Your task to perform on an android device: When is my next appointment? Image 0: 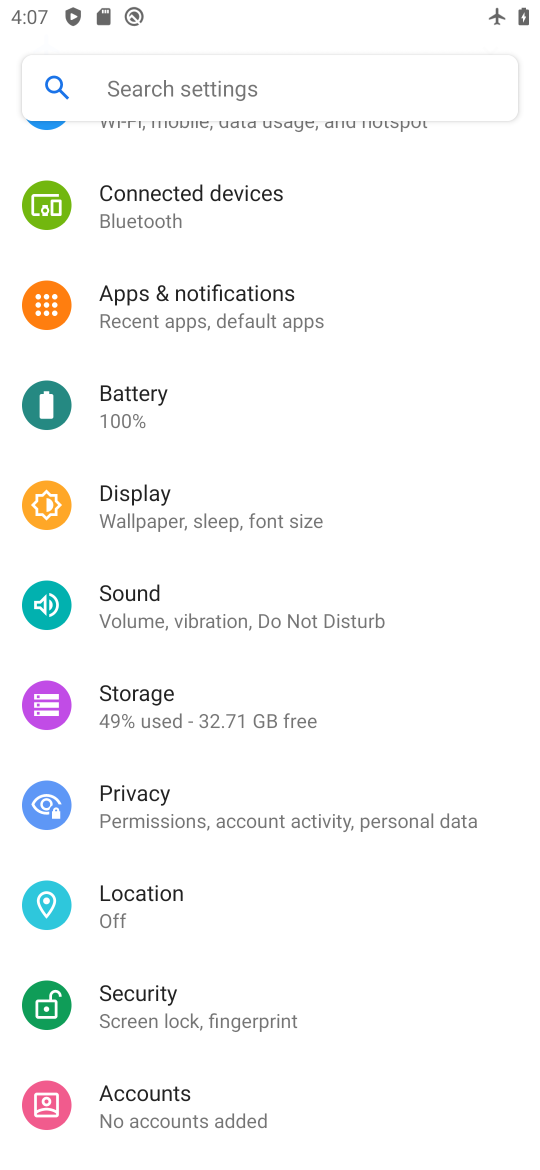
Step 0: drag from (425, 1022) to (344, 674)
Your task to perform on an android device: When is my next appointment? Image 1: 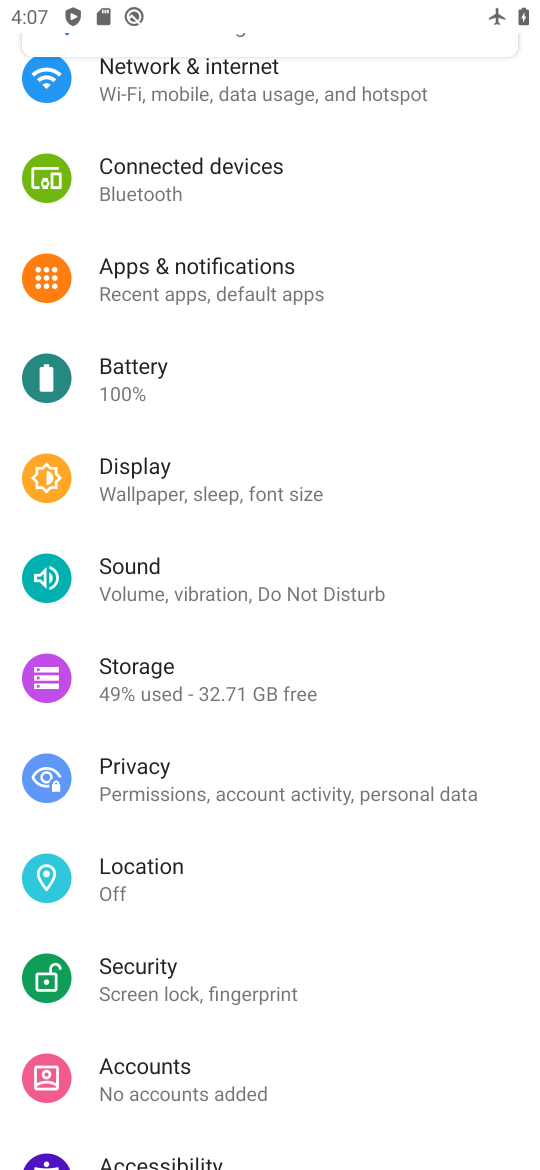
Step 1: press home button
Your task to perform on an android device: When is my next appointment? Image 2: 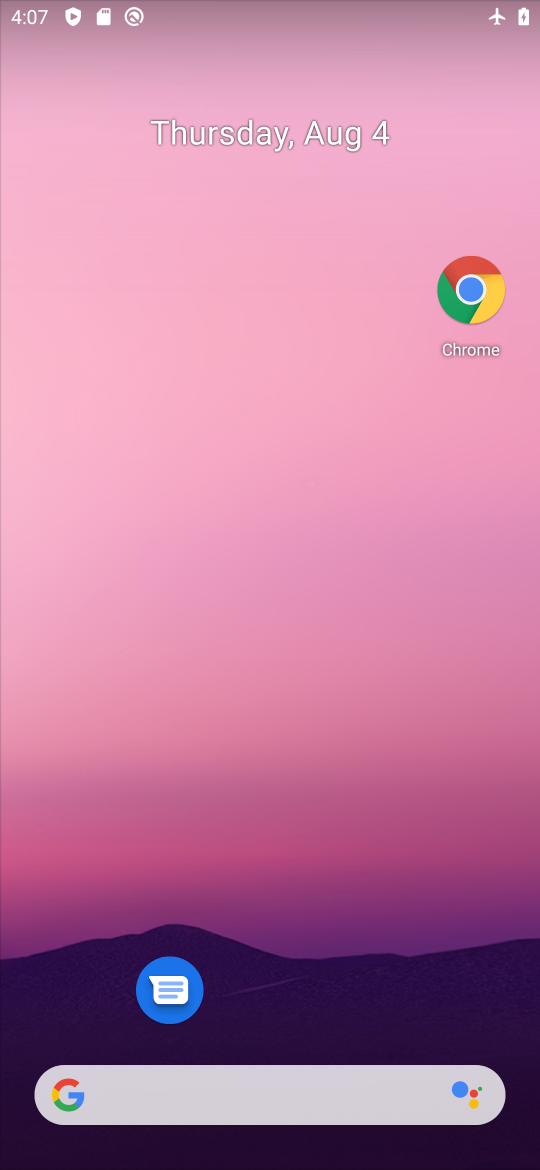
Step 2: drag from (304, 1029) to (463, 1)
Your task to perform on an android device: When is my next appointment? Image 3: 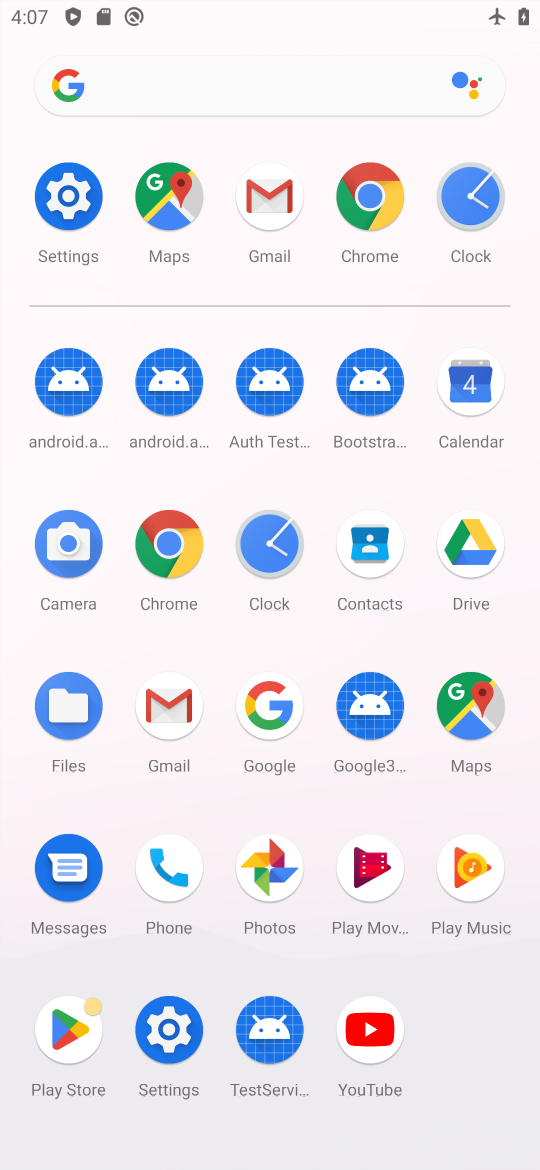
Step 3: click (480, 422)
Your task to perform on an android device: When is my next appointment? Image 4: 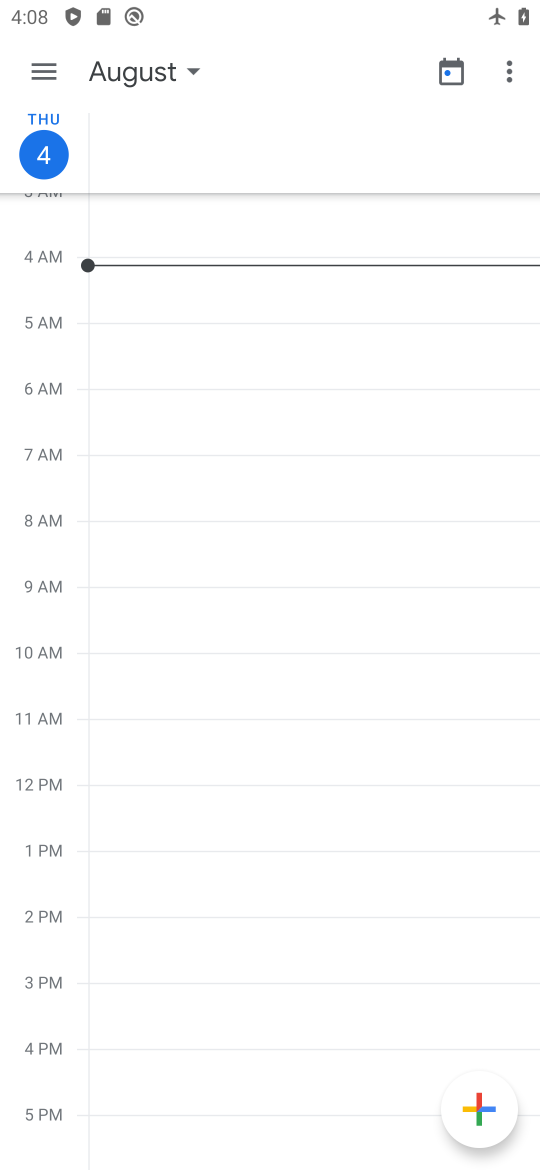
Step 4: task complete